Your task to perform on an android device: turn notification dots off Image 0: 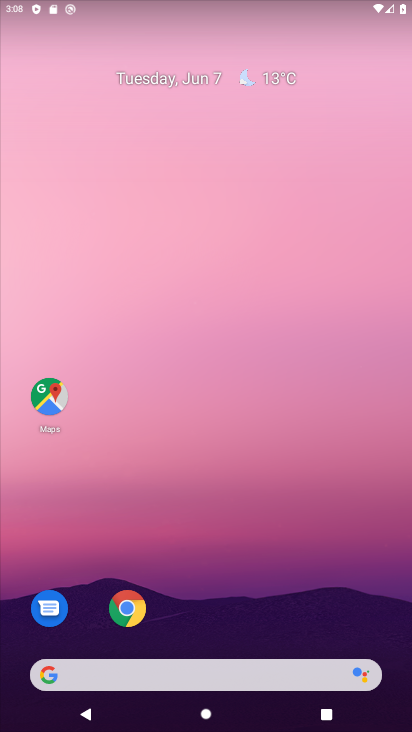
Step 0: drag from (228, 647) to (338, 143)
Your task to perform on an android device: turn notification dots off Image 1: 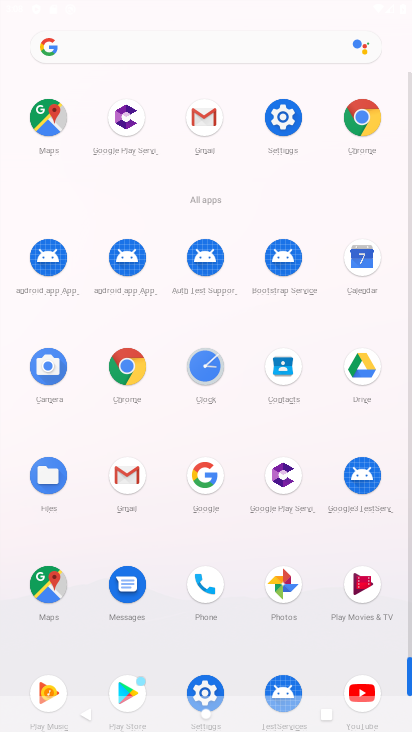
Step 1: drag from (222, 549) to (286, 363)
Your task to perform on an android device: turn notification dots off Image 2: 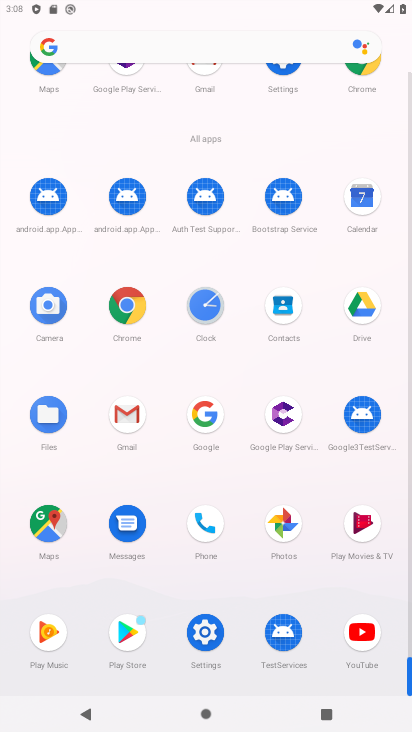
Step 2: click (197, 635)
Your task to perform on an android device: turn notification dots off Image 3: 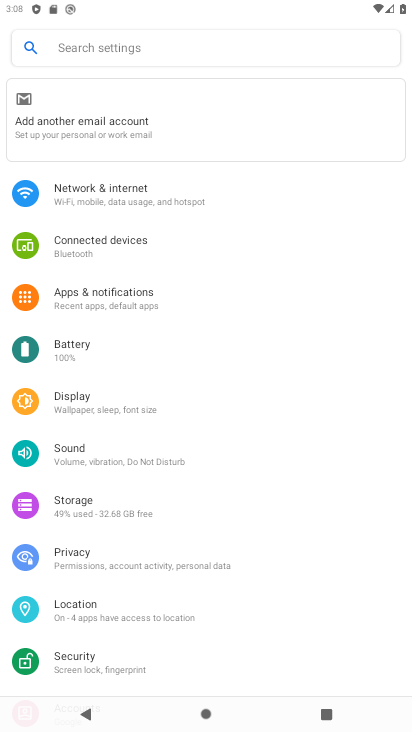
Step 3: click (153, 308)
Your task to perform on an android device: turn notification dots off Image 4: 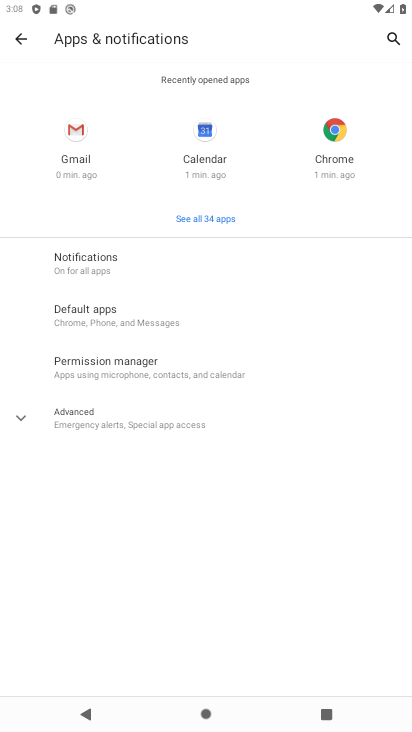
Step 4: click (140, 257)
Your task to perform on an android device: turn notification dots off Image 5: 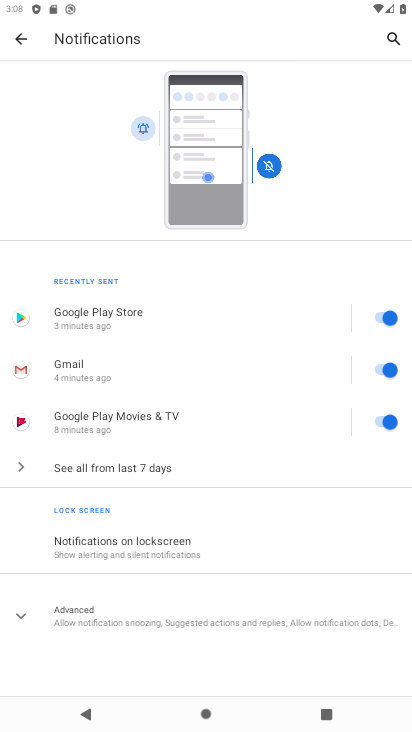
Step 5: drag from (209, 612) to (409, 121)
Your task to perform on an android device: turn notification dots off Image 6: 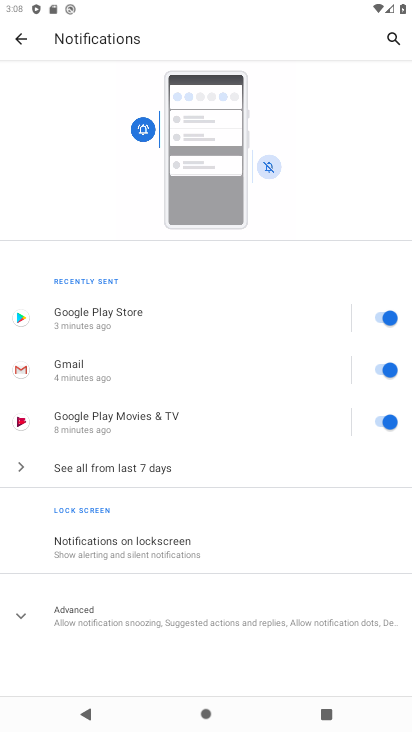
Step 6: click (176, 632)
Your task to perform on an android device: turn notification dots off Image 7: 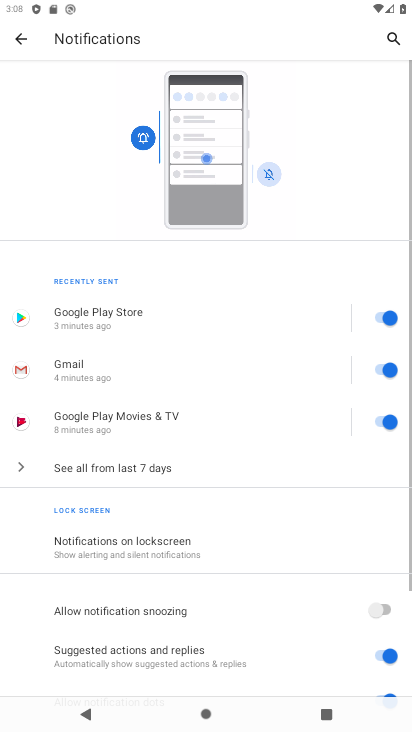
Step 7: drag from (162, 654) to (287, 197)
Your task to perform on an android device: turn notification dots off Image 8: 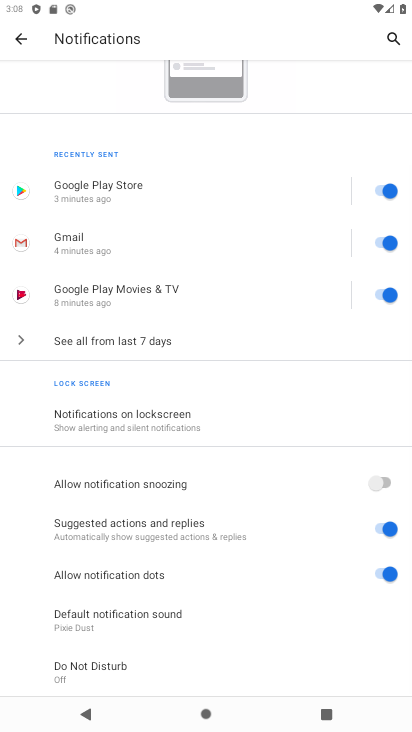
Step 8: click (371, 579)
Your task to perform on an android device: turn notification dots off Image 9: 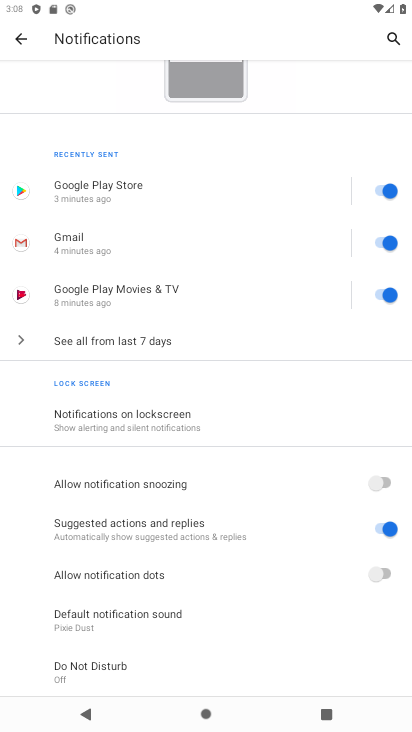
Step 9: task complete